Your task to perform on an android device: Open Reddit.com Image 0: 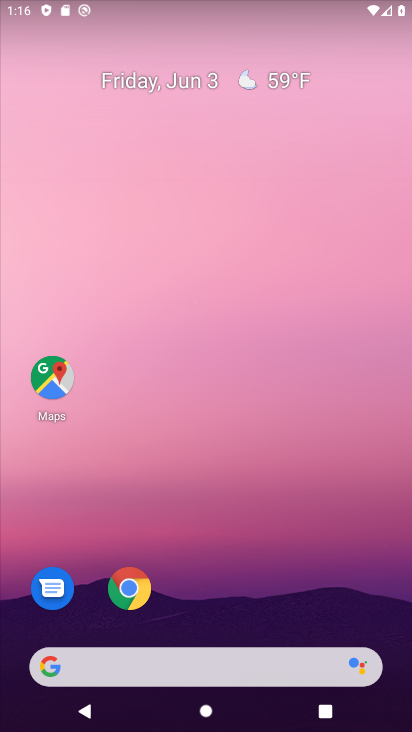
Step 0: drag from (205, 436) to (185, 27)
Your task to perform on an android device: Open Reddit.com Image 1: 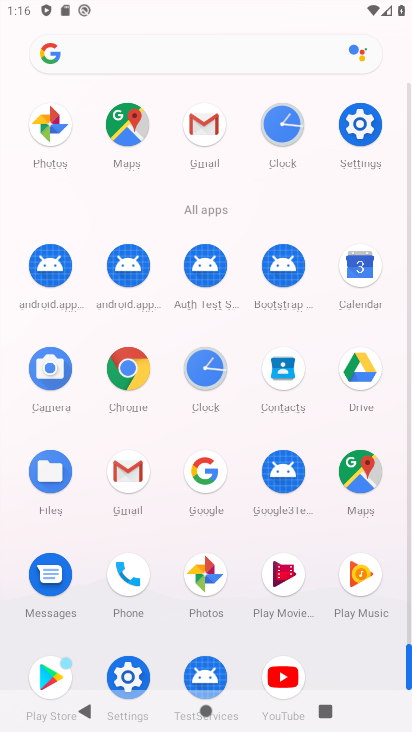
Step 1: drag from (20, 482) to (22, 151)
Your task to perform on an android device: Open Reddit.com Image 2: 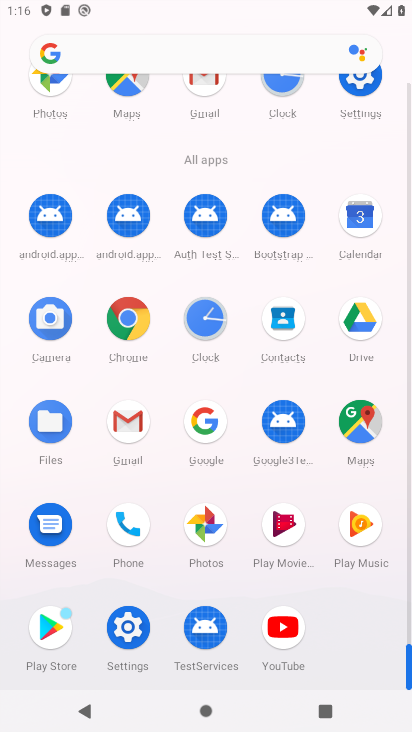
Step 2: click (129, 317)
Your task to perform on an android device: Open Reddit.com Image 3: 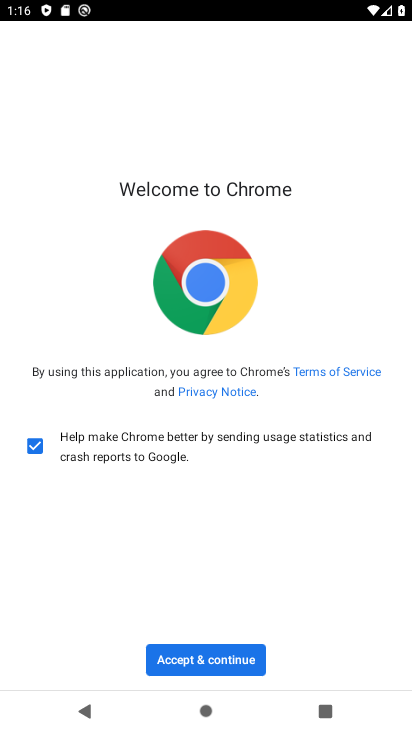
Step 3: click (221, 650)
Your task to perform on an android device: Open Reddit.com Image 4: 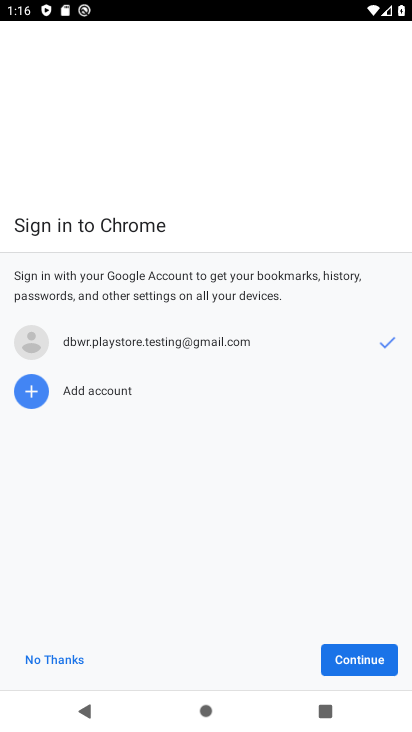
Step 4: click (350, 660)
Your task to perform on an android device: Open Reddit.com Image 5: 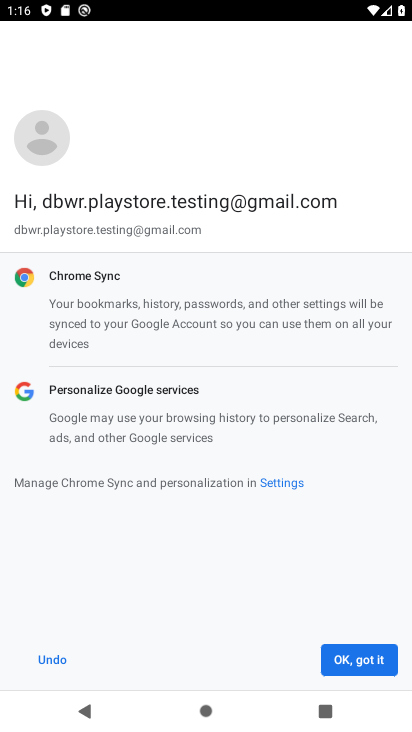
Step 5: click (349, 657)
Your task to perform on an android device: Open Reddit.com Image 6: 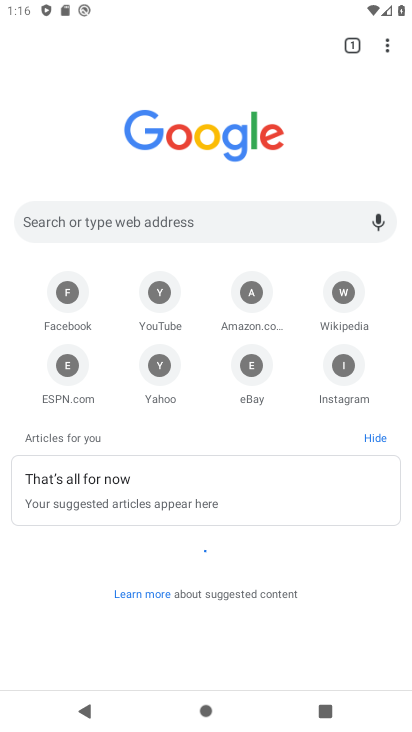
Step 6: click (200, 213)
Your task to perform on an android device: Open Reddit.com Image 7: 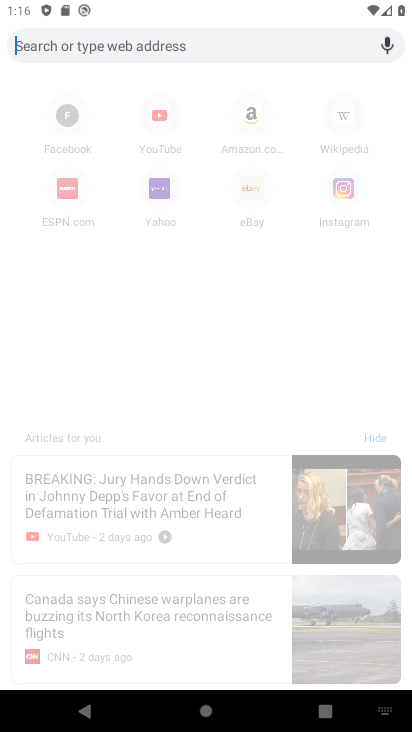
Step 7: type "Reddit.com"
Your task to perform on an android device: Open Reddit.com Image 8: 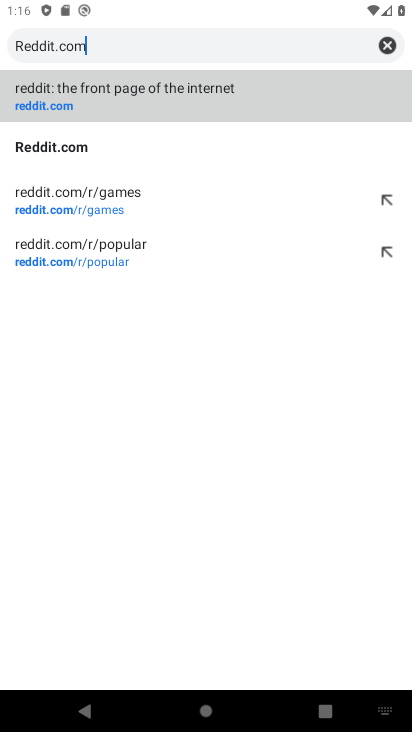
Step 8: type ""
Your task to perform on an android device: Open Reddit.com Image 9: 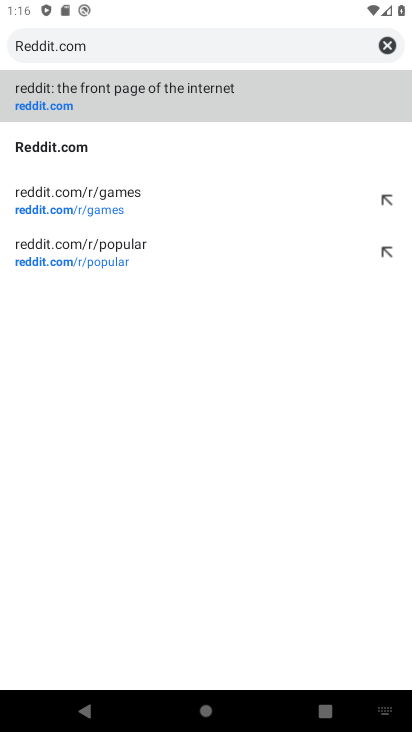
Step 9: click (83, 86)
Your task to perform on an android device: Open Reddit.com Image 10: 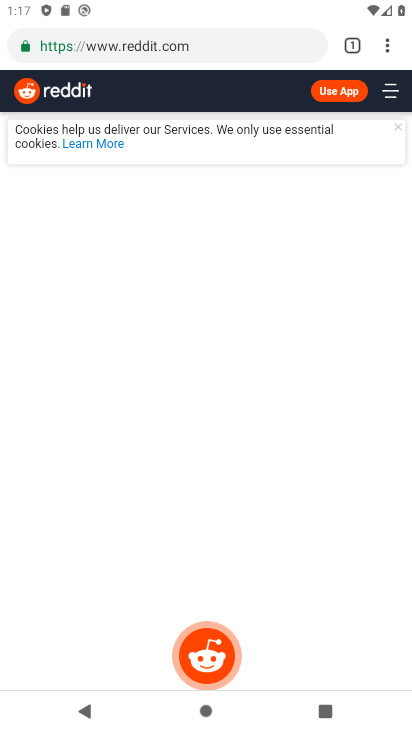
Step 10: task complete